Your task to perform on an android device: Open Google Image 0: 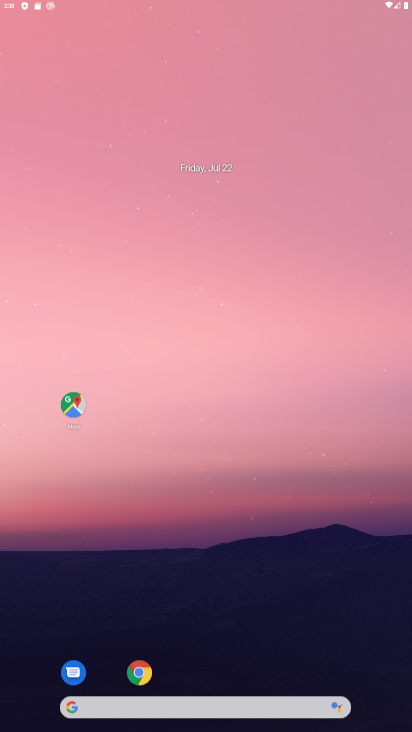
Step 0: drag from (191, 586) to (351, 130)
Your task to perform on an android device: Open Google Image 1: 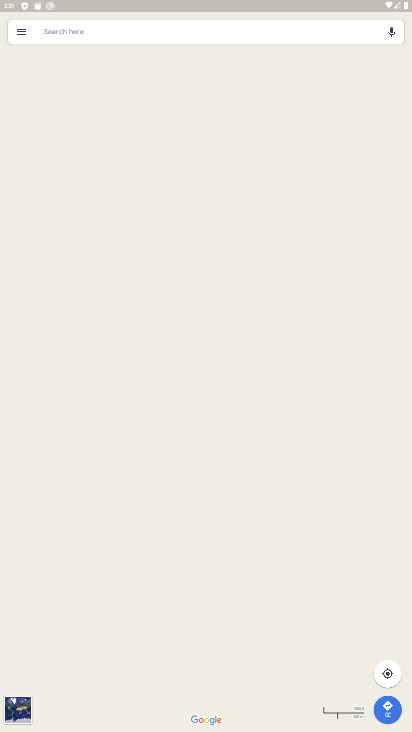
Step 1: press home button
Your task to perform on an android device: Open Google Image 2: 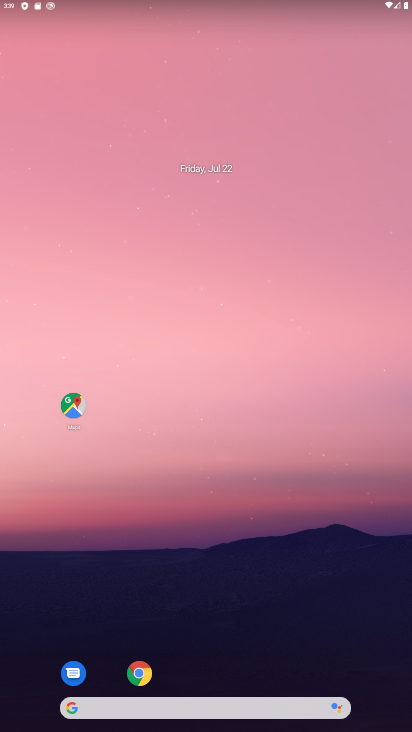
Step 2: drag from (203, 458) to (214, 13)
Your task to perform on an android device: Open Google Image 3: 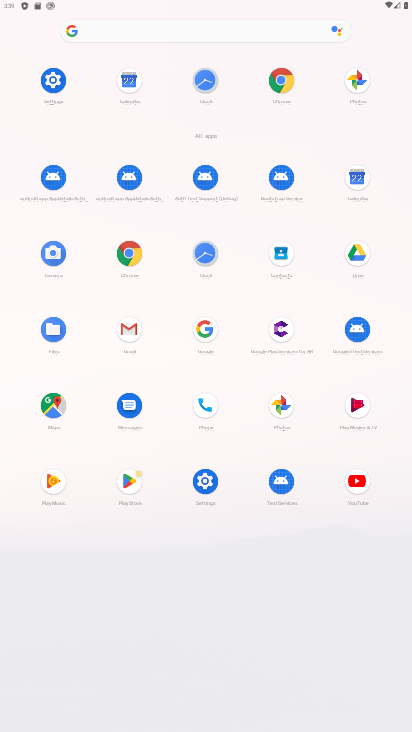
Step 3: click (209, 326)
Your task to perform on an android device: Open Google Image 4: 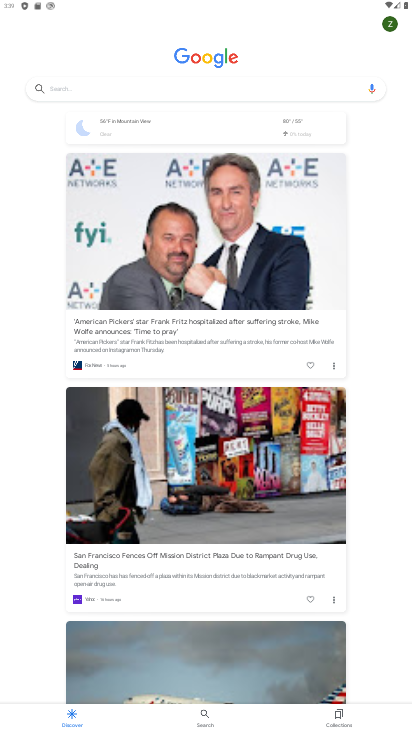
Step 4: task complete